Your task to perform on an android device: See recent photos Image 0: 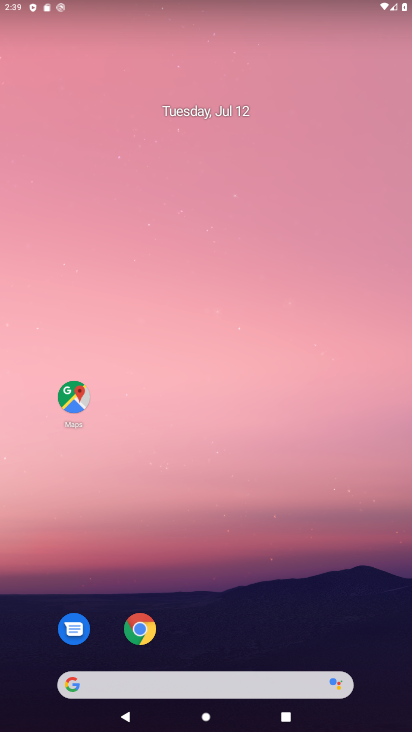
Step 0: drag from (244, 555) to (311, 117)
Your task to perform on an android device: See recent photos Image 1: 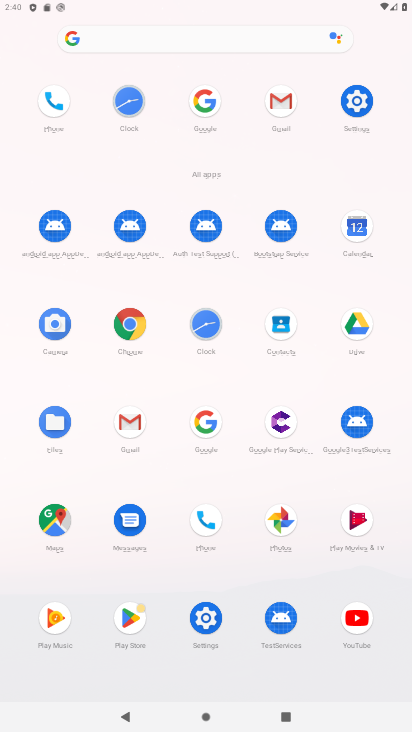
Step 1: click (273, 517)
Your task to perform on an android device: See recent photos Image 2: 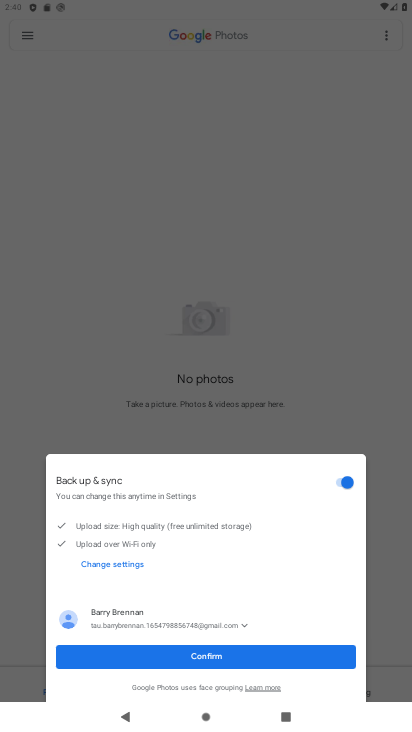
Step 2: click (218, 650)
Your task to perform on an android device: See recent photos Image 3: 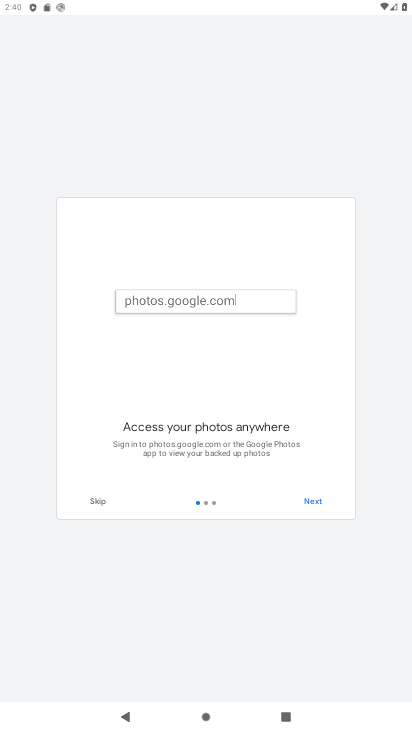
Step 3: click (318, 498)
Your task to perform on an android device: See recent photos Image 4: 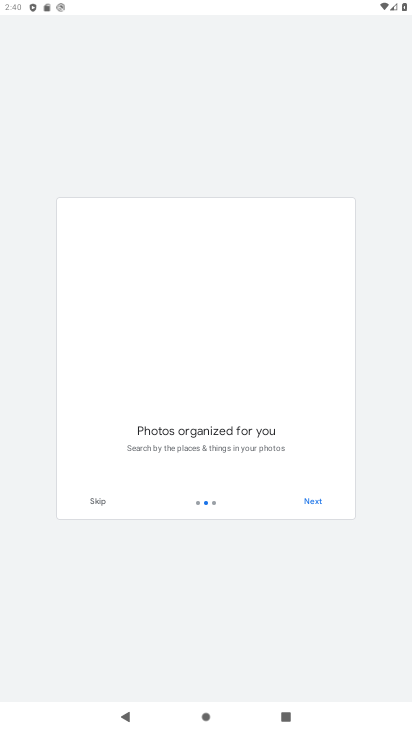
Step 4: click (318, 498)
Your task to perform on an android device: See recent photos Image 5: 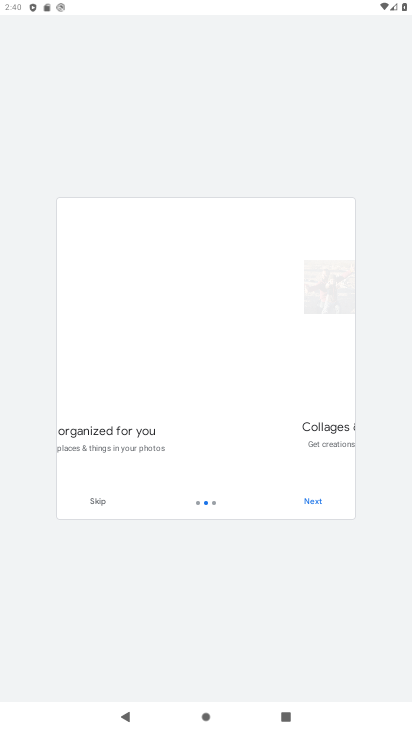
Step 5: click (318, 498)
Your task to perform on an android device: See recent photos Image 6: 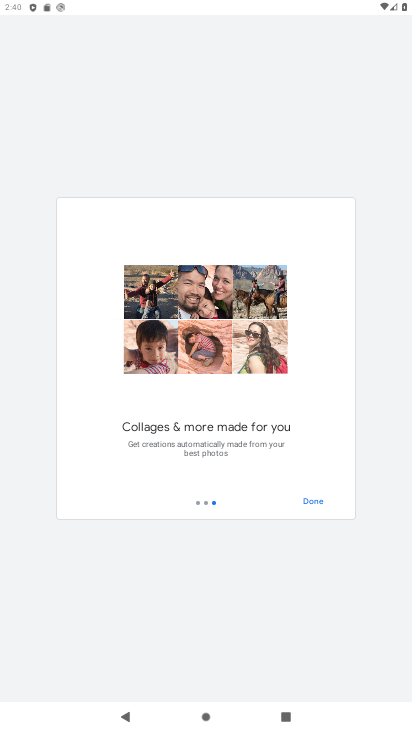
Step 6: click (318, 498)
Your task to perform on an android device: See recent photos Image 7: 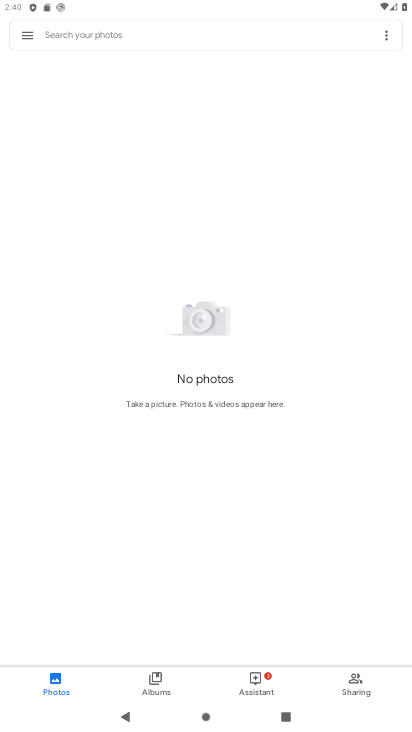
Step 7: task complete